Your task to perform on an android device: Open Chrome and go to settings Image 0: 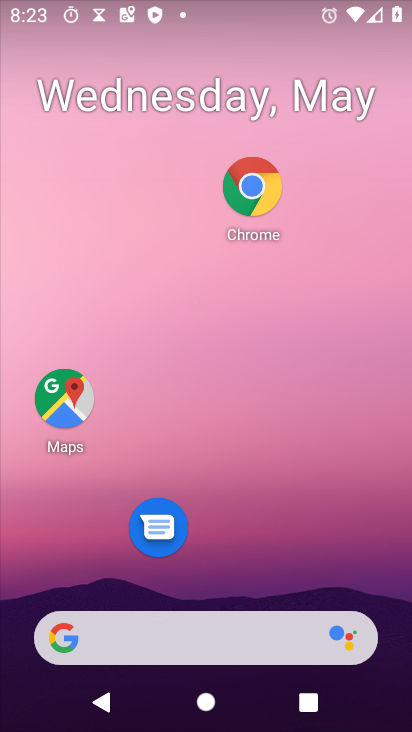
Step 0: click (247, 190)
Your task to perform on an android device: Open Chrome and go to settings Image 1: 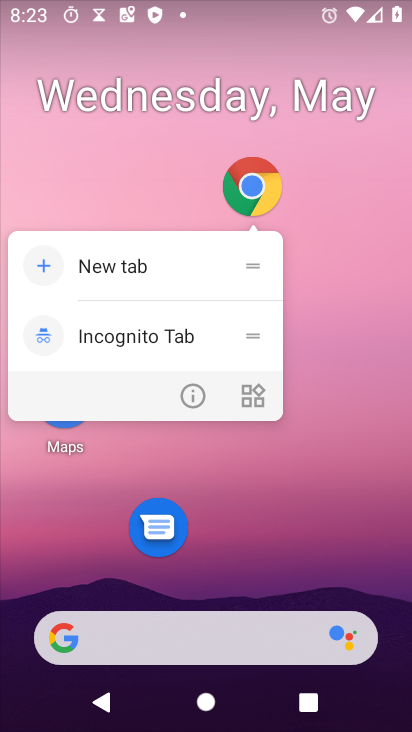
Step 1: click (269, 187)
Your task to perform on an android device: Open Chrome and go to settings Image 2: 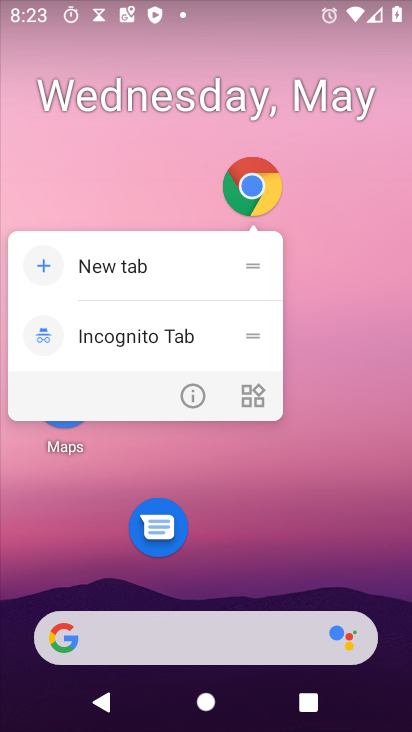
Step 2: click (337, 520)
Your task to perform on an android device: Open Chrome and go to settings Image 3: 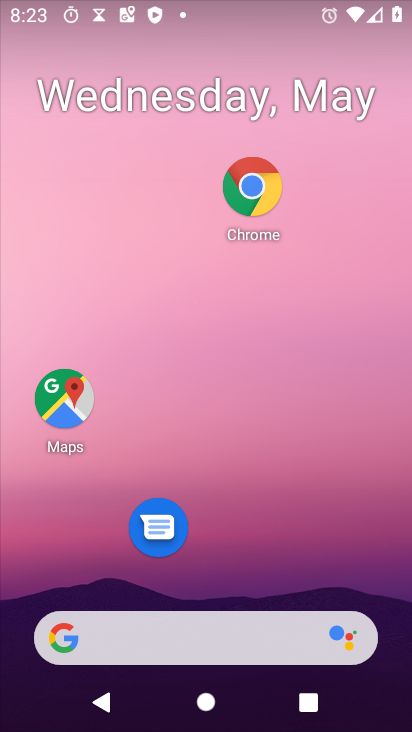
Step 3: drag from (337, 520) to (355, 78)
Your task to perform on an android device: Open Chrome and go to settings Image 4: 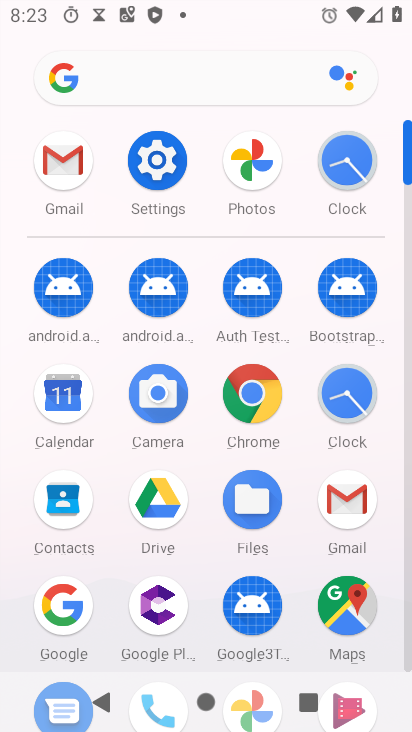
Step 4: click (246, 389)
Your task to perform on an android device: Open Chrome and go to settings Image 5: 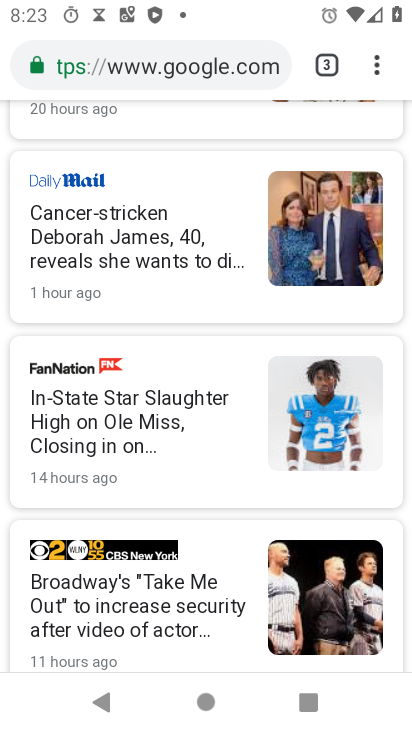
Step 5: task complete